Your task to perform on an android device: change timer sound Image 0: 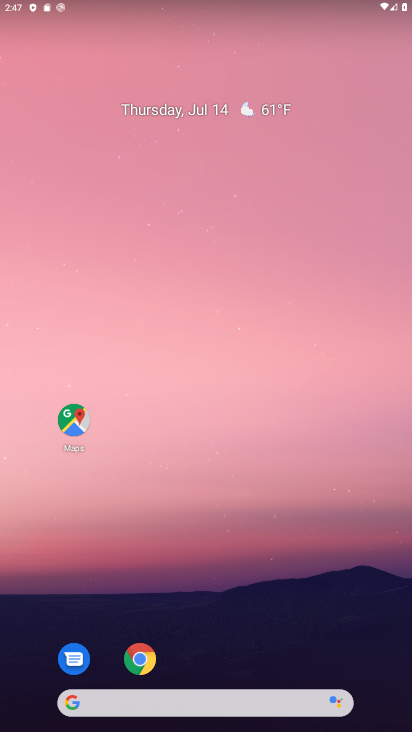
Step 0: drag from (204, 710) to (240, 314)
Your task to perform on an android device: change timer sound Image 1: 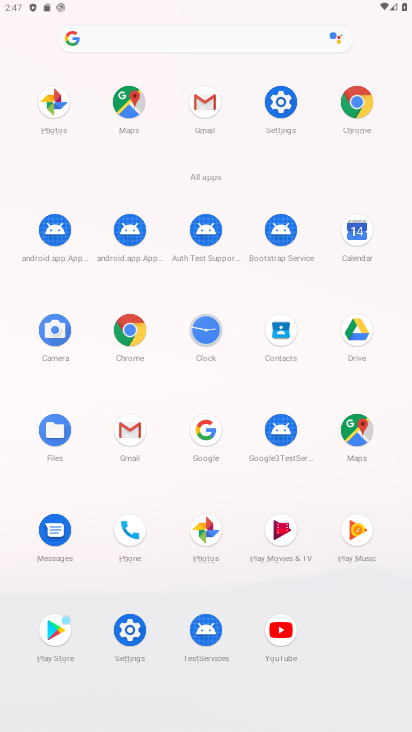
Step 1: click (206, 331)
Your task to perform on an android device: change timer sound Image 2: 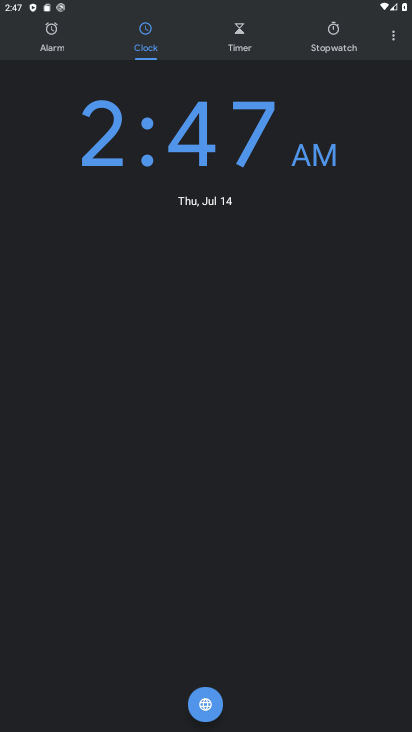
Step 2: click (395, 37)
Your task to perform on an android device: change timer sound Image 3: 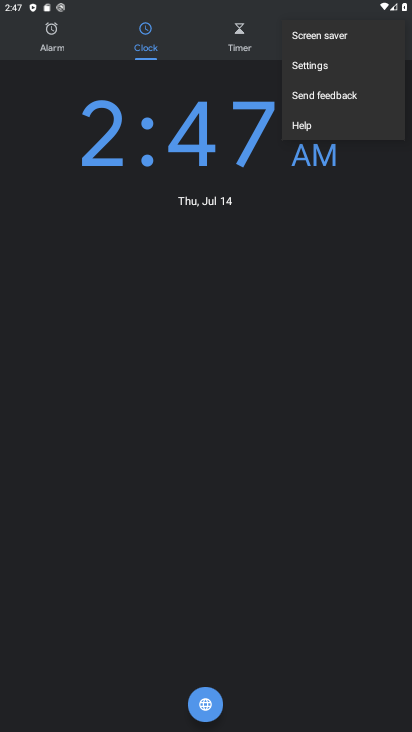
Step 3: click (318, 71)
Your task to perform on an android device: change timer sound Image 4: 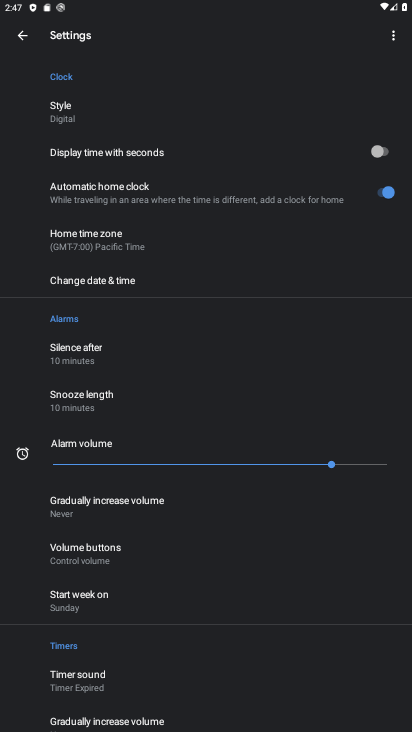
Step 4: click (80, 682)
Your task to perform on an android device: change timer sound Image 5: 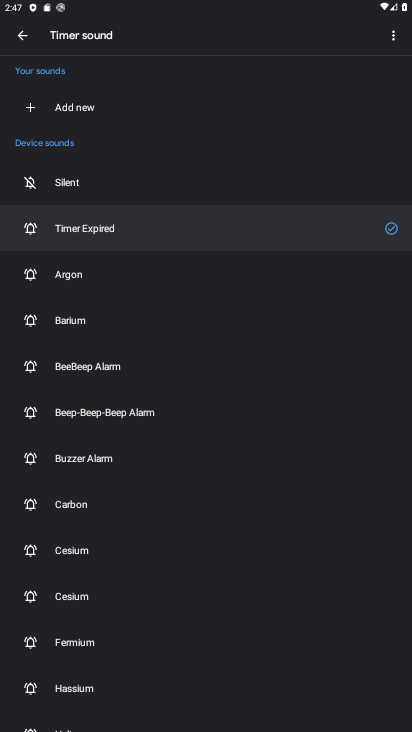
Step 5: click (75, 506)
Your task to perform on an android device: change timer sound Image 6: 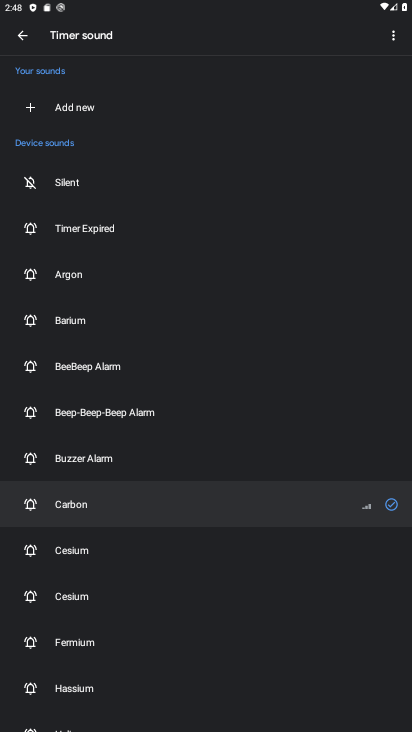
Step 6: task complete